Your task to perform on an android device: Show the shopping cart on target.com. Image 0: 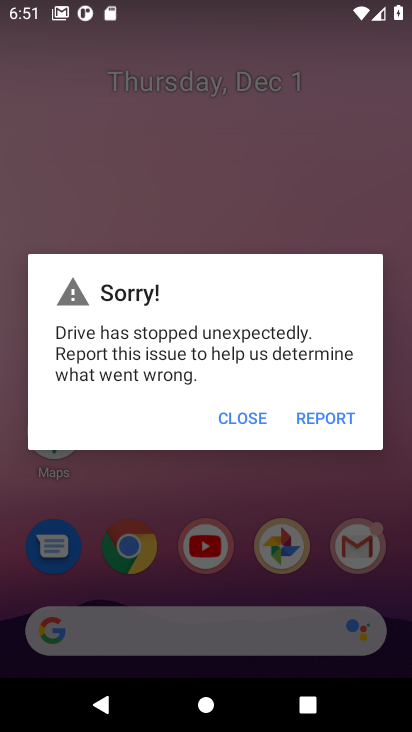
Step 0: press home button
Your task to perform on an android device: Show the shopping cart on target.com. Image 1: 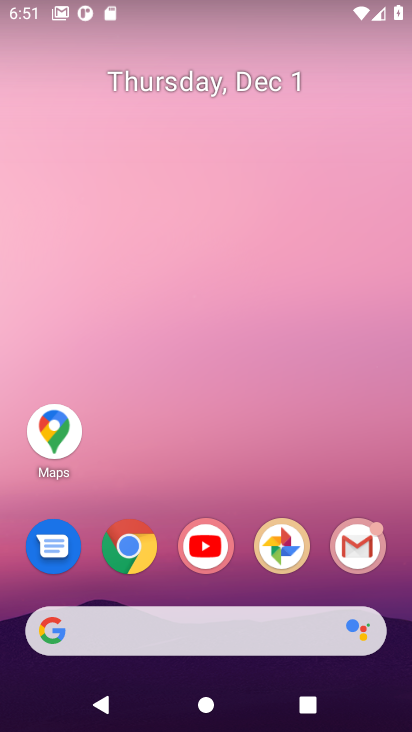
Step 1: click (125, 555)
Your task to perform on an android device: Show the shopping cart on target.com. Image 2: 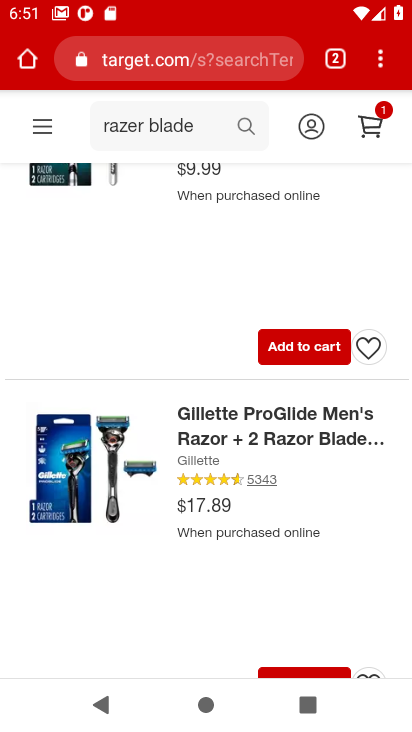
Step 2: click (369, 123)
Your task to perform on an android device: Show the shopping cart on target.com. Image 3: 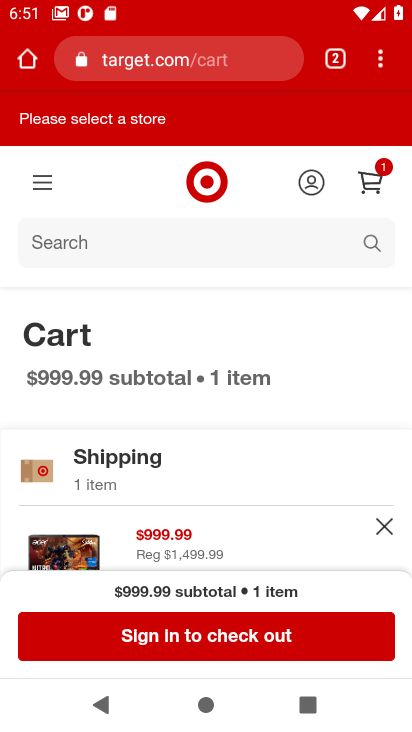
Step 3: task complete